Your task to perform on an android device: Open the phone app and click the voicemail tab. Image 0: 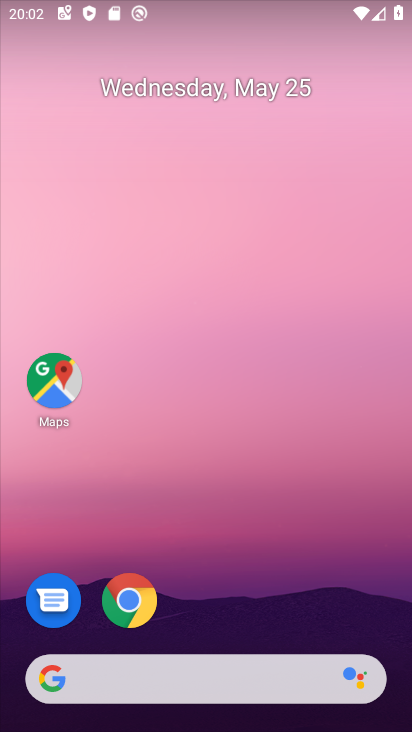
Step 0: drag from (335, 624) to (300, 224)
Your task to perform on an android device: Open the phone app and click the voicemail tab. Image 1: 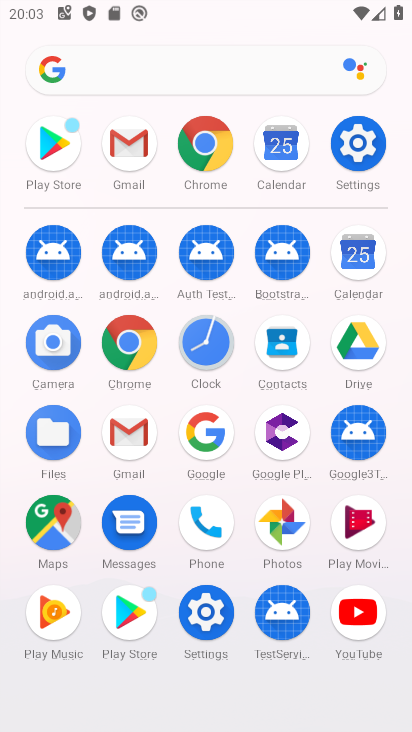
Step 1: click (193, 515)
Your task to perform on an android device: Open the phone app and click the voicemail tab. Image 2: 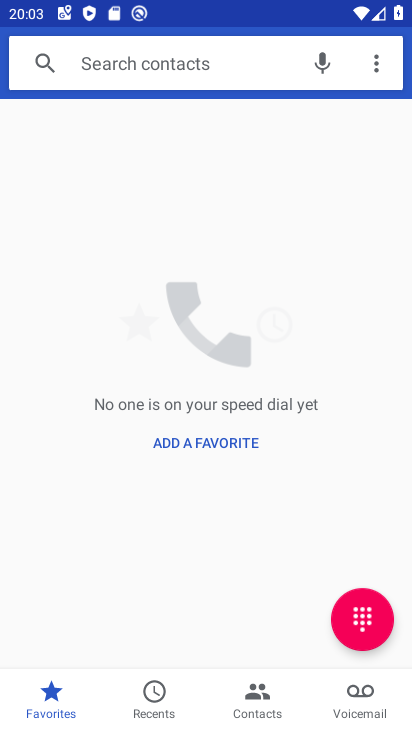
Step 2: click (370, 694)
Your task to perform on an android device: Open the phone app and click the voicemail tab. Image 3: 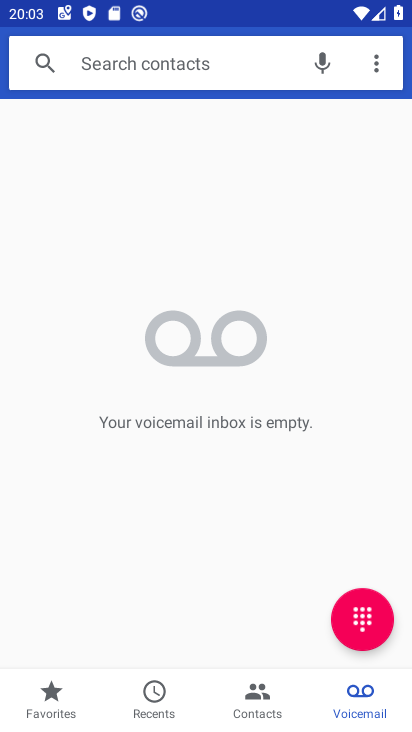
Step 3: task complete